Your task to perform on an android device: turn on sleep mode Image 0: 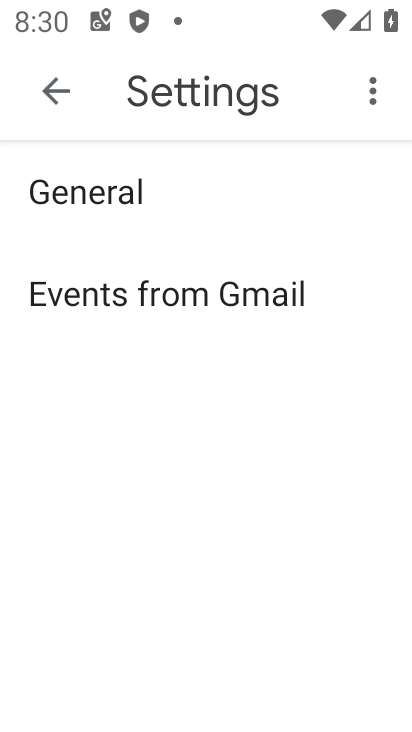
Step 0: press home button
Your task to perform on an android device: turn on sleep mode Image 1: 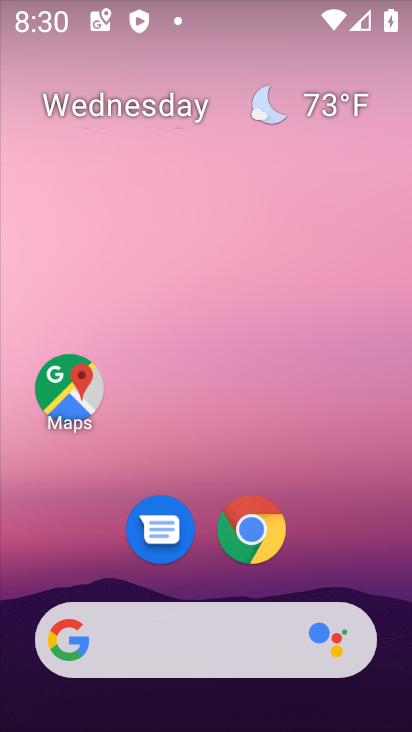
Step 1: drag from (330, 445) to (332, 177)
Your task to perform on an android device: turn on sleep mode Image 2: 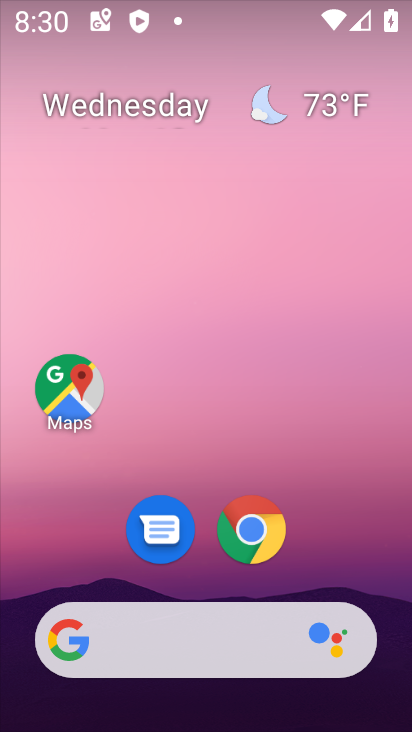
Step 2: drag from (353, 554) to (340, 174)
Your task to perform on an android device: turn on sleep mode Image 3: 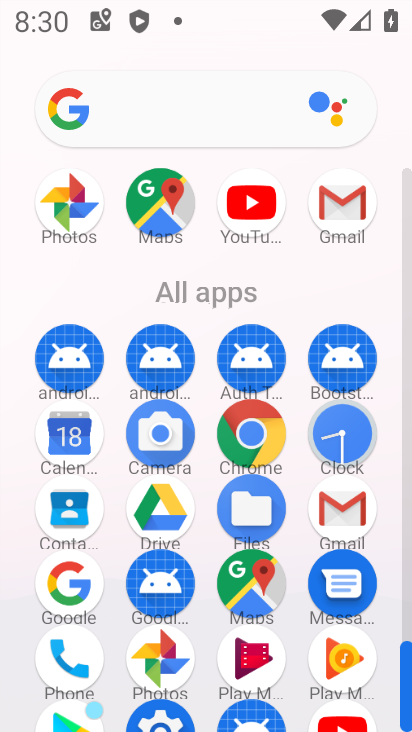
Step 3: drag from (200, 549) to (200, 381)
Your task to perform on an android device: turn on sleep mode Image 4: 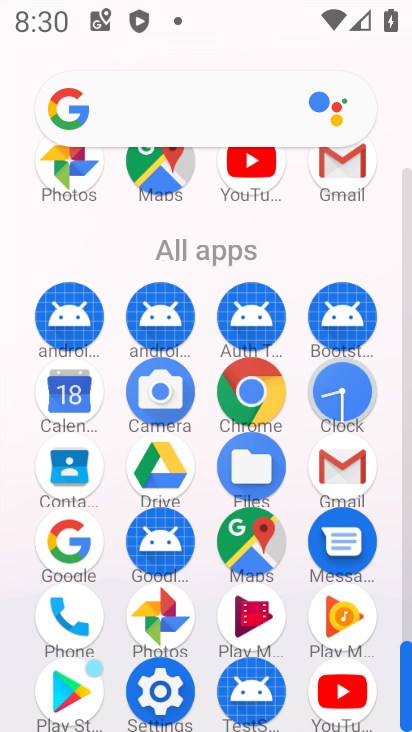
Step 4: click (166, 701)
Your task to perform on an android device: turn on sleep mode Image 5: 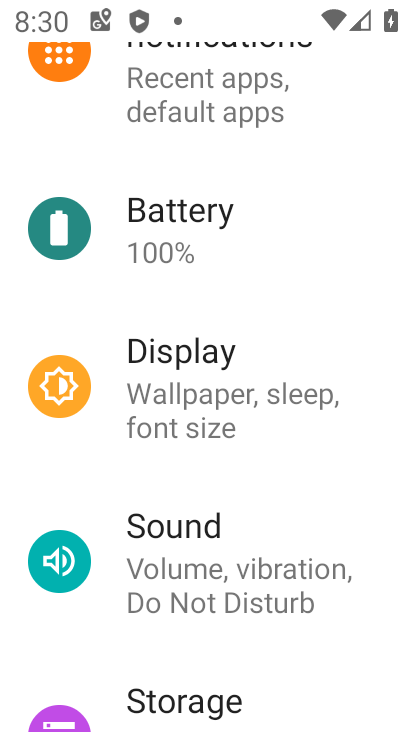
Step 5: drag from (342, 626) to (352, 487)
Your task to perform on an android device: turn on sleep mode Image 6: 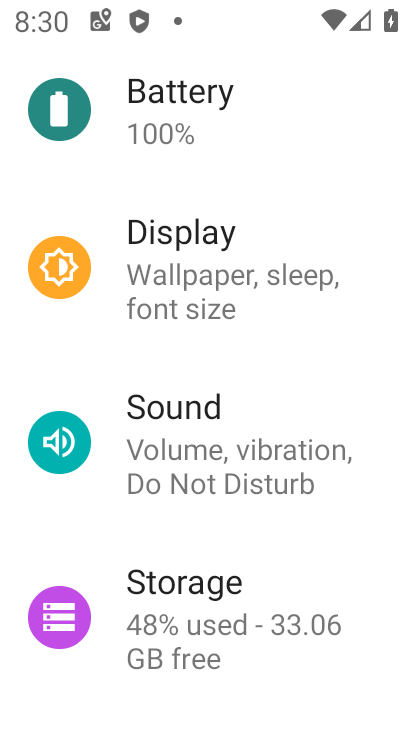
Step 6: drag from (343, 663) to (362, 542)
Your task to perform on an android device: turn on sleep mode Image 7: 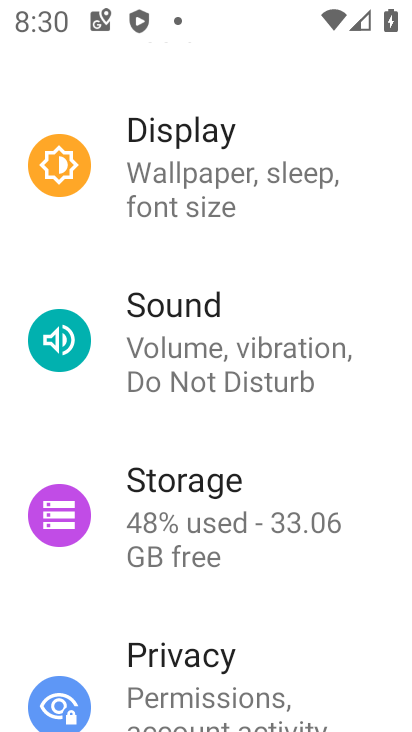
Step 7: drag from (354, 619) to (363, 509)
Your task to perform on an android device: turn on sleep mode Image 8: 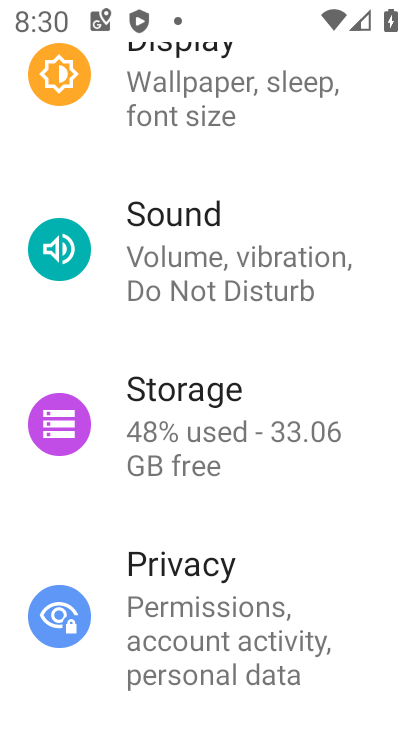
Step 8: drag from (348, 648) to (353, 533)
Your task to perform on an android device: turn on sleep mode Image 9: 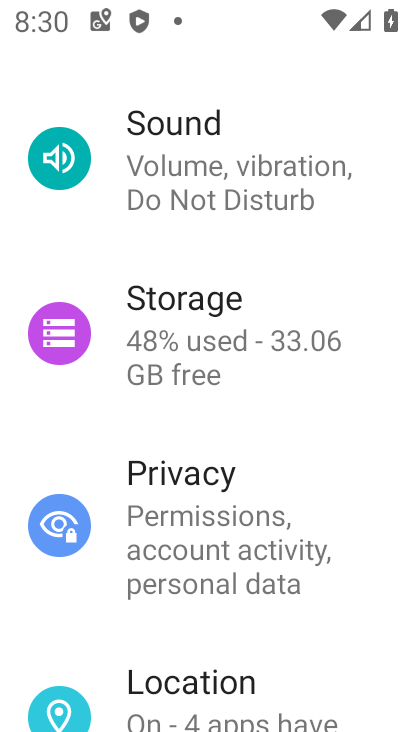
Step 9: drag from (361, 639) to (363, 523)
Your task to perform on an android device: turn on sleep mode Image 10: 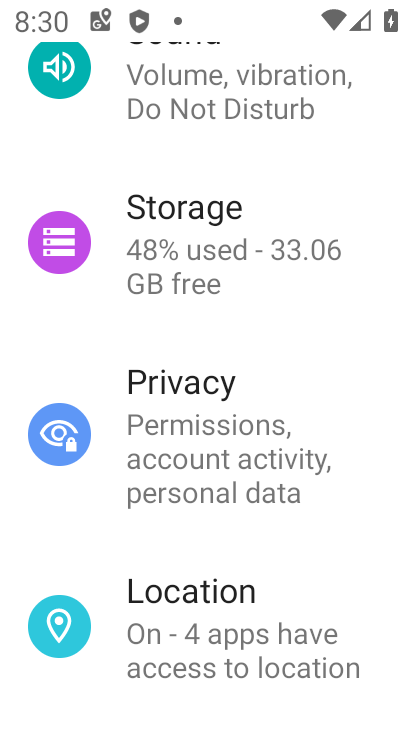
Step 10: drag from (350, 615) to (350, 515)
Your task to perform on an android device: turn on sleep mode Image 11: 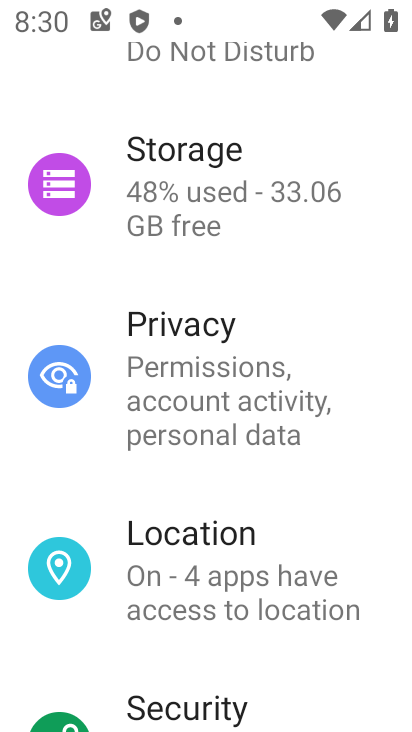
Step 11: drag from (366, 374) to (364, 491)
Your task to perform on an android device: turn on sleep mode Image 12: 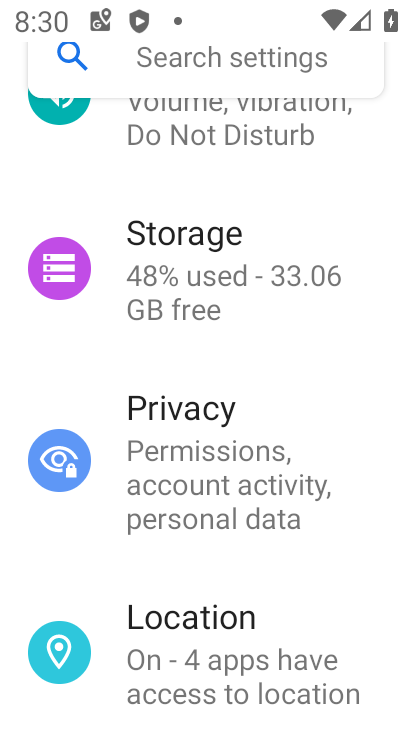
Step 12: drag from (360, 346) to (357, 465)
Your task to perform on an android device: turn on sleep mode Image 13: 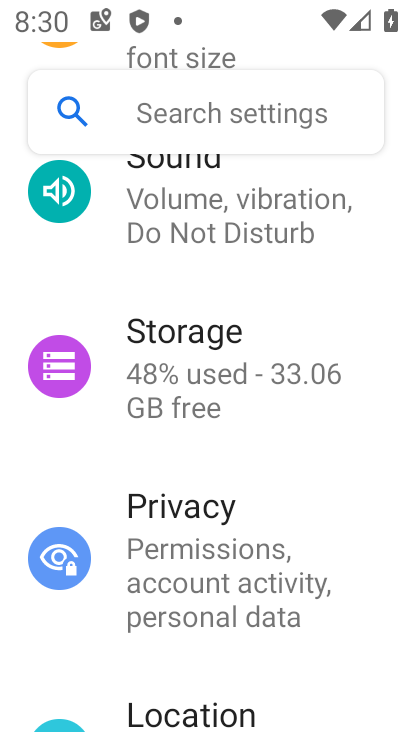
Step 13: drag from (355, 321) to (356, 423)
Your task to perform on an android device: turn on sleep mode Image 14: 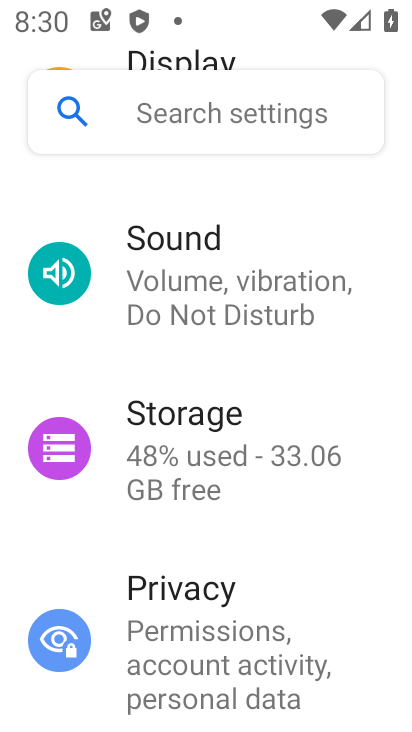
Step 14: drag from (373, 264) to (364, 365)
Your task to perform on an android device: turn on sleep mode Image 15: 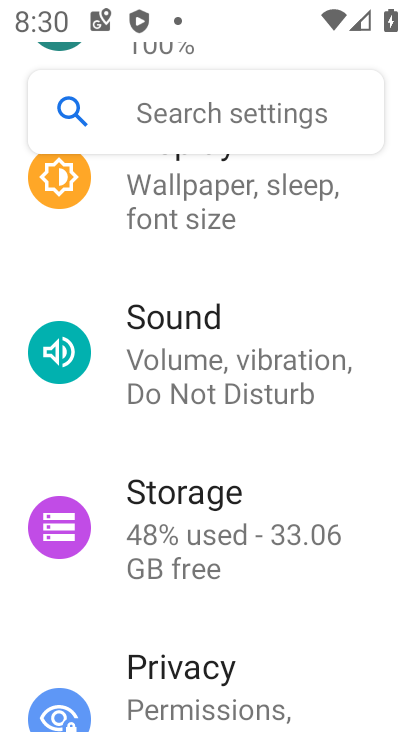
Step 15: drag from (370, 268) to (372, 387)
Your task to perform on an android device: turn on sleep mode Image 16: 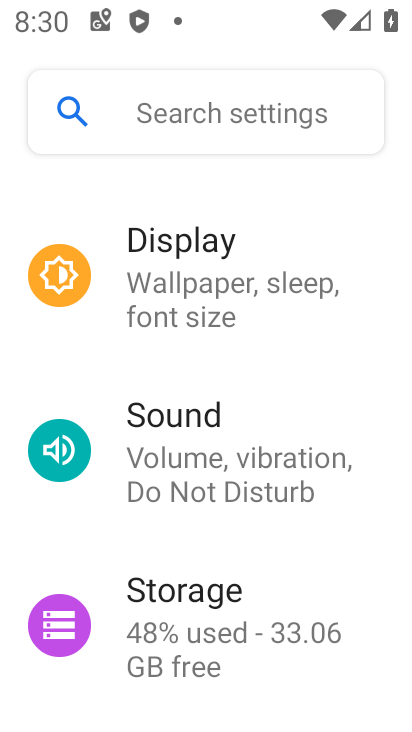
Step 16: drag from (374, 278) to (377, 362)
Your task to perform on an android device: turn on sleep mode Image 17: 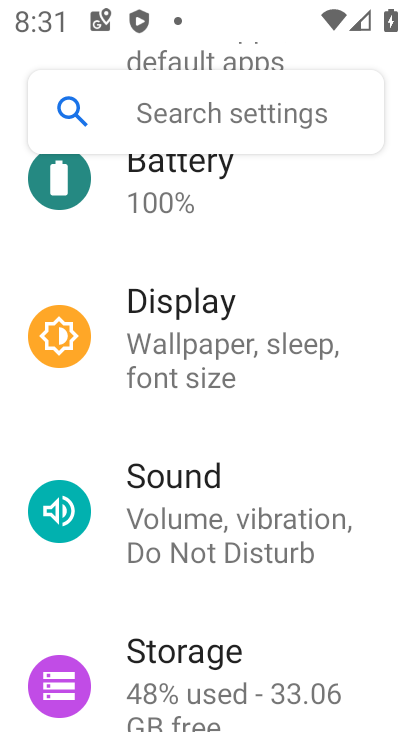
Step 17: click (321, 335)
Your task to perform on an android device: turn on sleep mode Image 18: 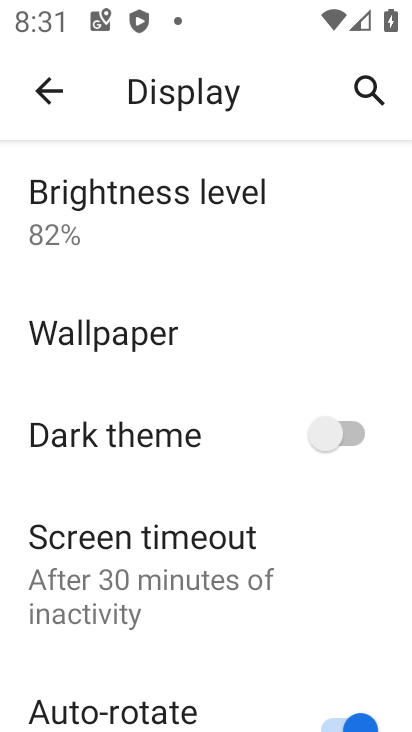
Step 18: task complete